Your task to perform on an android device: turn off improve location accuracy Image 0: 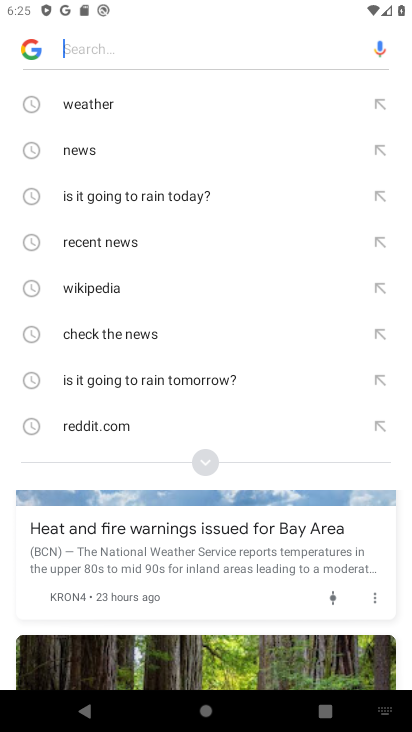
Step 0: press home button
Your task to perform on an android device: turn off improve location accuracy Image 1: 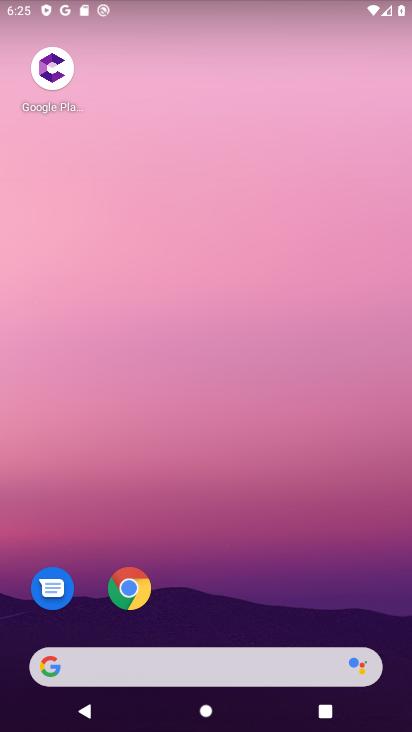
Step 1: drag from (292, 575) to (369, 102)
Your task to perform on an android device: turn off improve location accuracy Image 2: 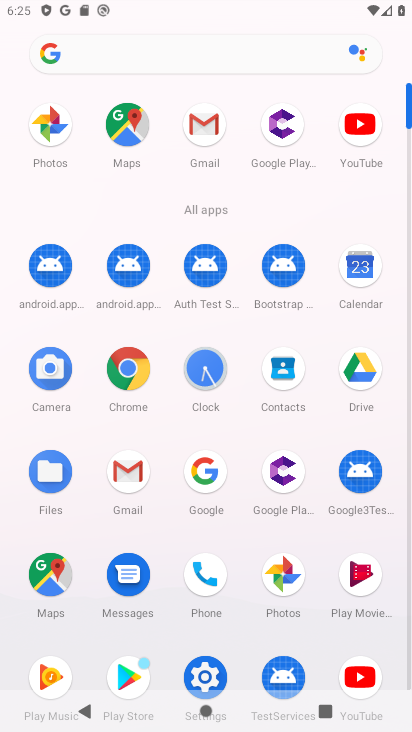
Step 2: click (217, 662)
Your task to perform on an android device: turn off improve location accuracy Image 3: 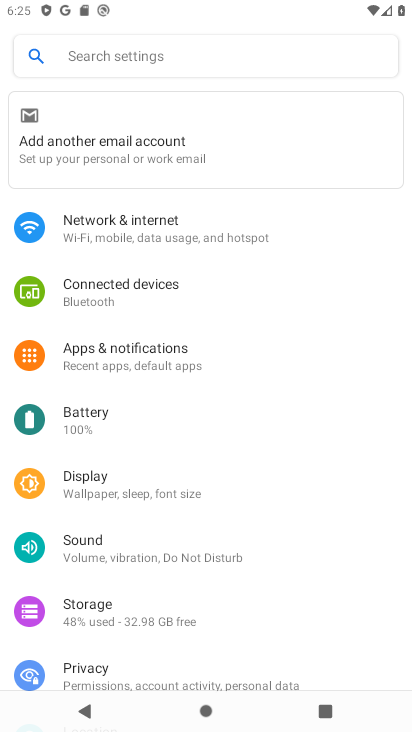
Step 3: drag from (216, 551) to (245, 250)
Your task to perform on an android device: turn off improve location accuracy Image 4: 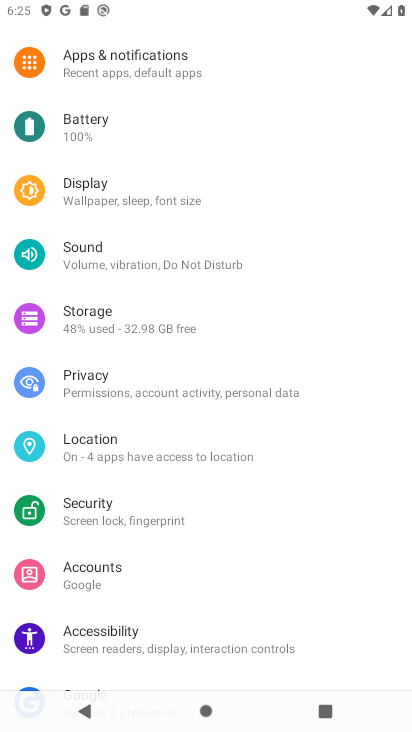
Step 4: click (102, 441)
Your task to perform on an android device: turn off improve location accuracy Image 5: 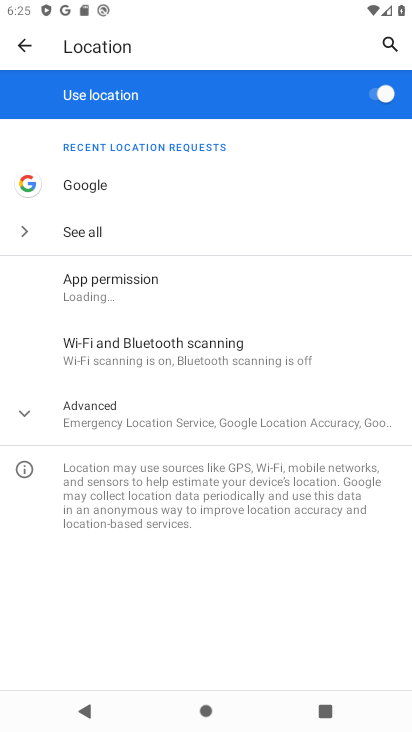
Step 5: click (165, 417)
Your task to perform on an android device: turn off improve location accuracy Image 6: 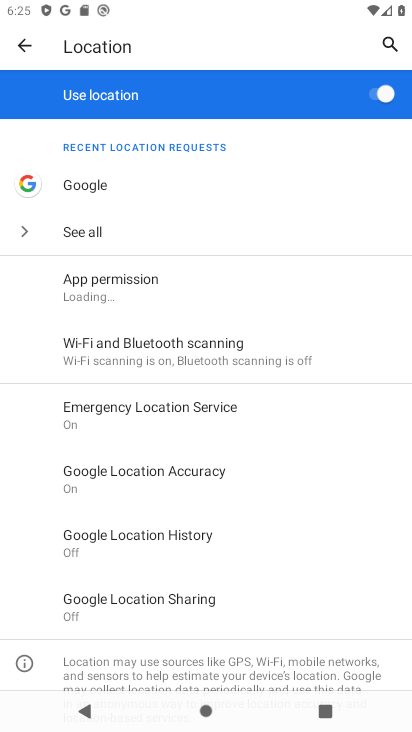
Step 6: drag from (226, 577) to (277, 364)
Your task to perform on an android device: turn off improve location accuracy Image 7: 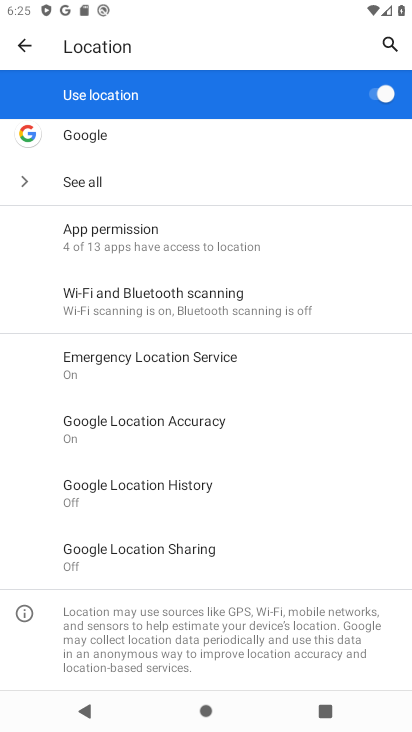
Step 7: click (186, 412)
Your task to perform on an android device: turn off improve location accuracy Image 8: 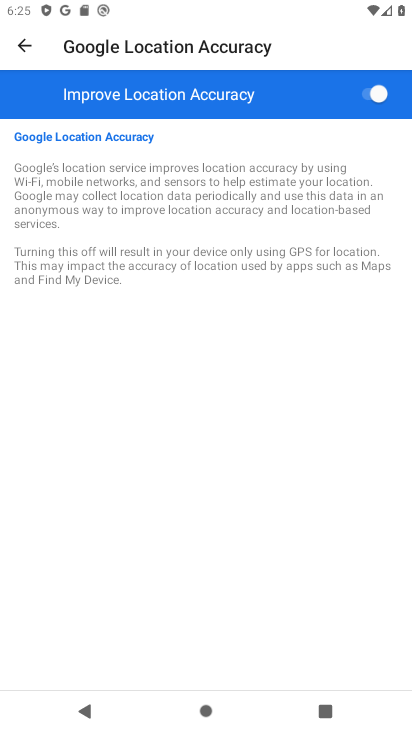
Step 8: click (372, 96)
Your task to perform on an android device: turn off improve location accuracy Image 9: 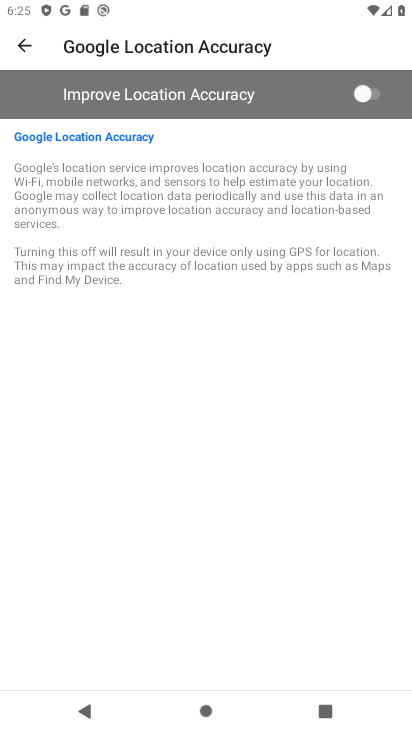
Step 9: task complete